Your task to perform on an android device: Open wifi settings Image 0: 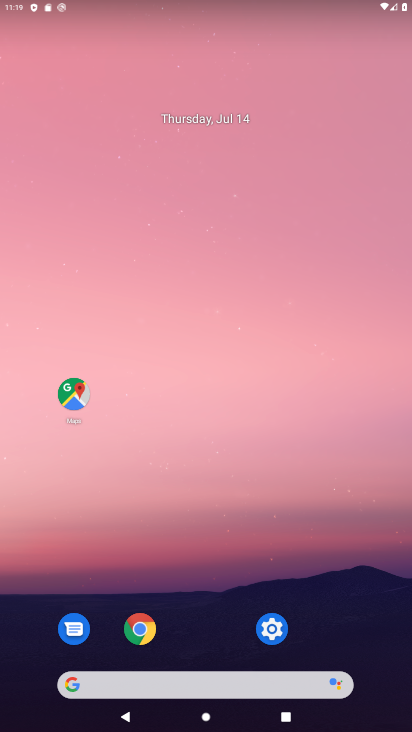
Step 0: press home button
Your task to perform on an android device: Open wifi settings Image 1: 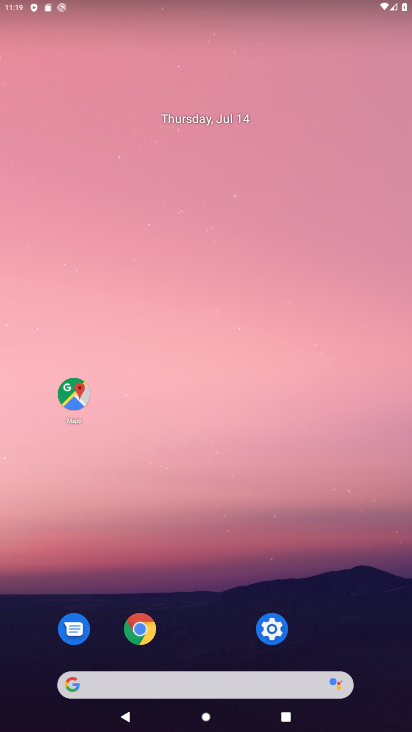
Step 1: click (272, 622)
Your task to perform on an android device: Open wifi settings Image 2: 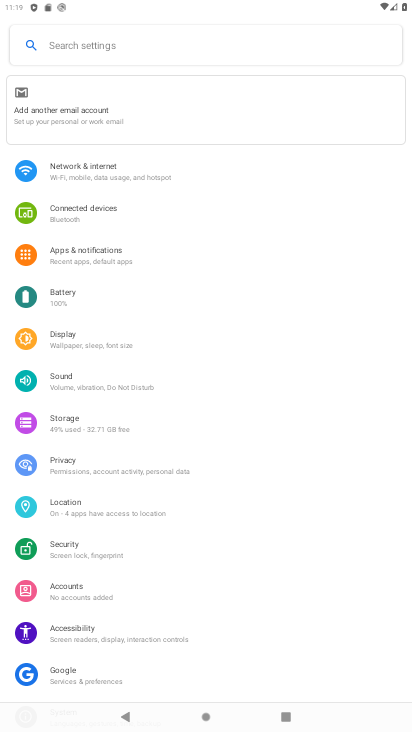
Step 2: click (117, 172)
Your task to perform on an android device: Open wifi settings Image 3: 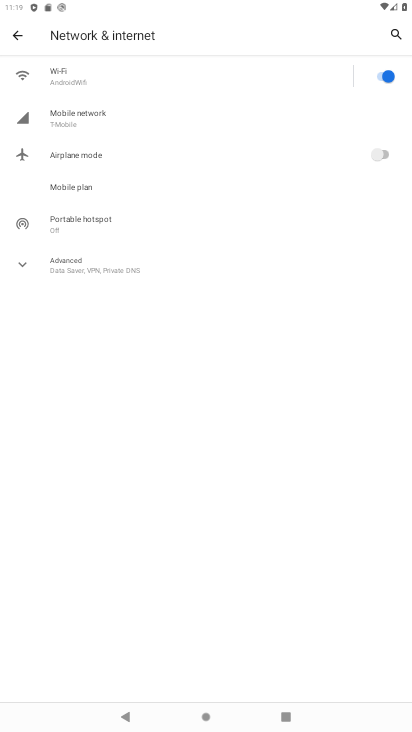
Step 3: click (91, 75)
Your task to perform on an android device: Open wifi settings Image 4: 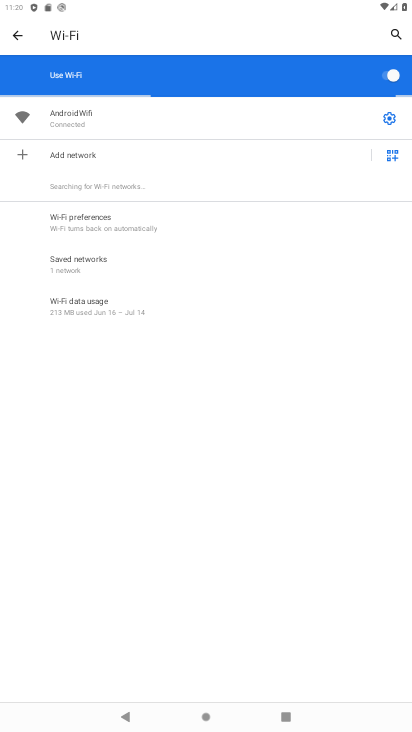
Step 4: task complete